Your task to perform on an android device: Go to settings Image 0: 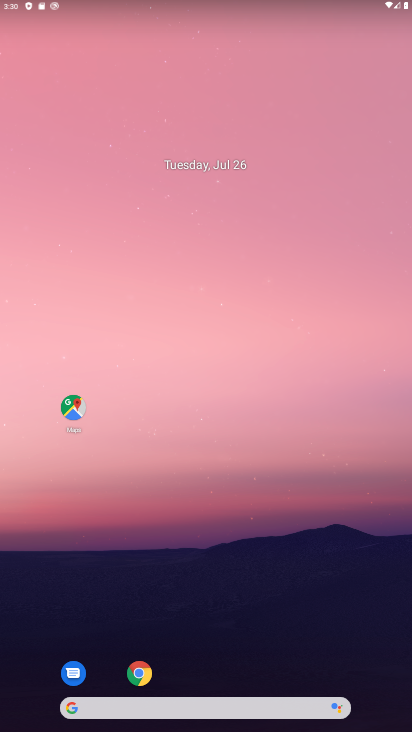
Step 0: drag from (203, 655) to (213, 186)
Your task to perform on an android device: Go to settings Image 1: 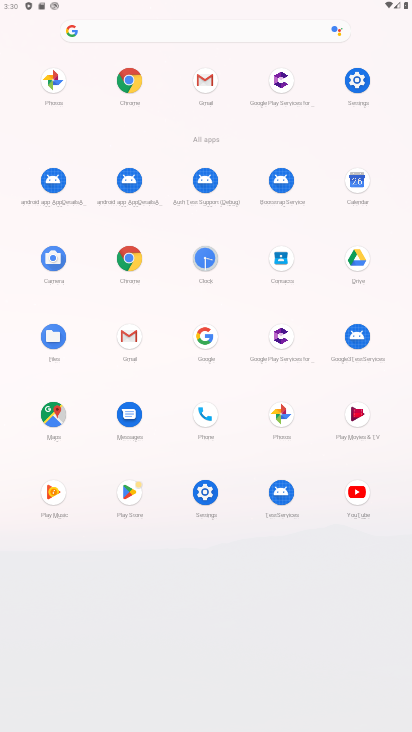
Step 1: click (361, 68)
Your task to perform on an android device: Go to settings Image 2: 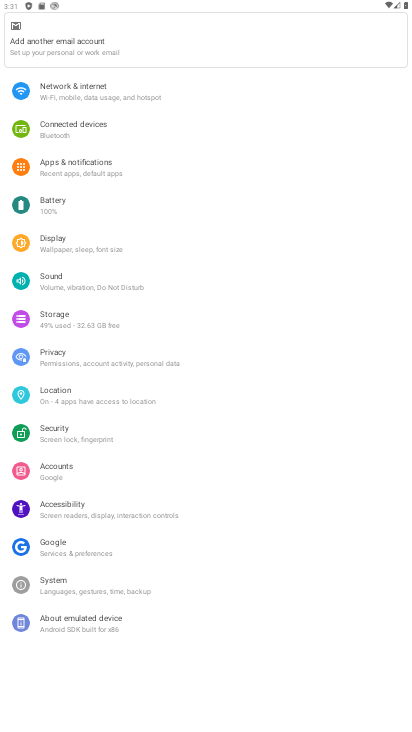
Step 2: task complete